Your task to perform on an android device: install app "WhatsApp Messenger" Image 0: 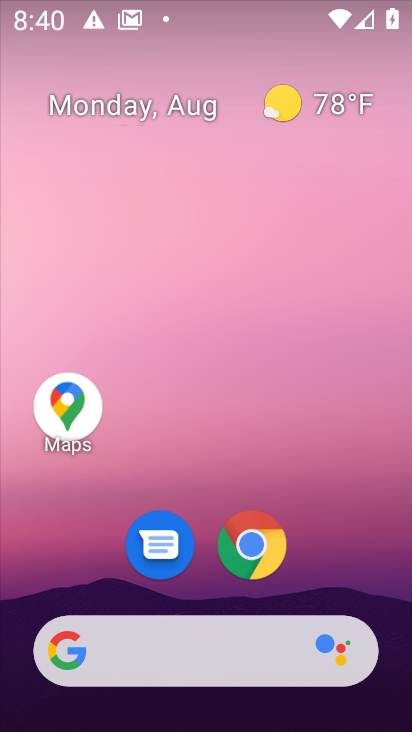
Step 0: press home button
Your task to perform on an android device: install app "WhatsApp Messenger" Image 1: 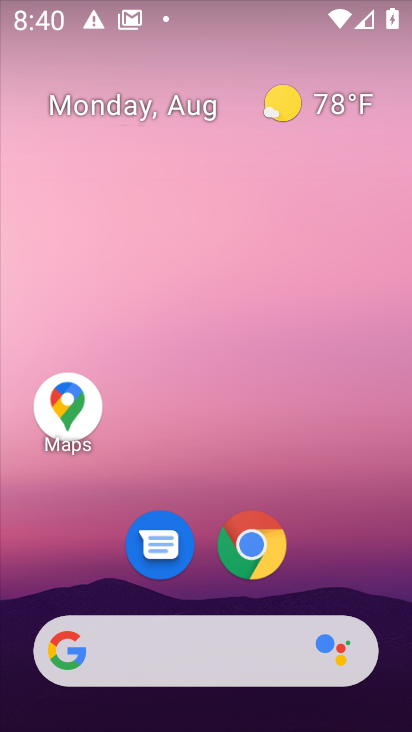
Step 1: drag from (356, 529) to (353, 60)
Your task to perform on an android device: install app "WhatsApp Messenger" Image 2: 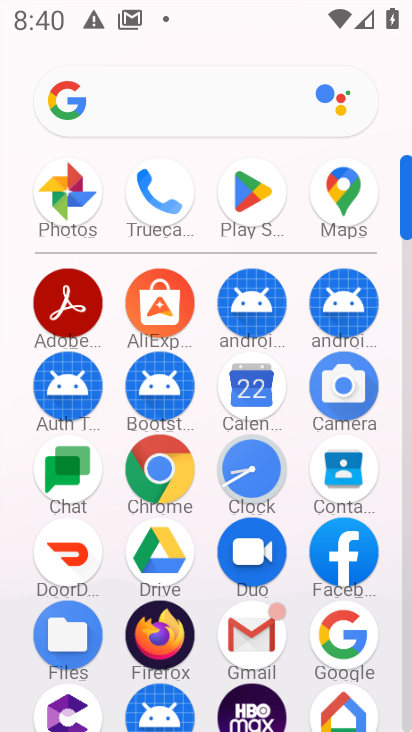
Step 2: click (259, 194)
Your task to perform on an android device: install app "WhatsApp Messenger" Image 3: 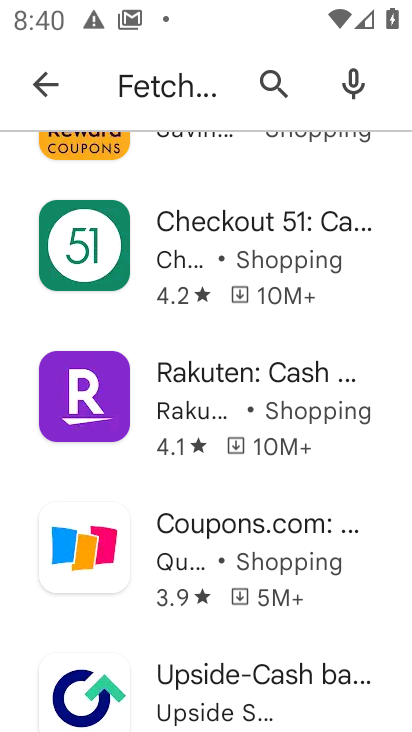
Step 3: press back button
Your task to perform on an android device: install app "WhatsApp Messenger" Image 4: 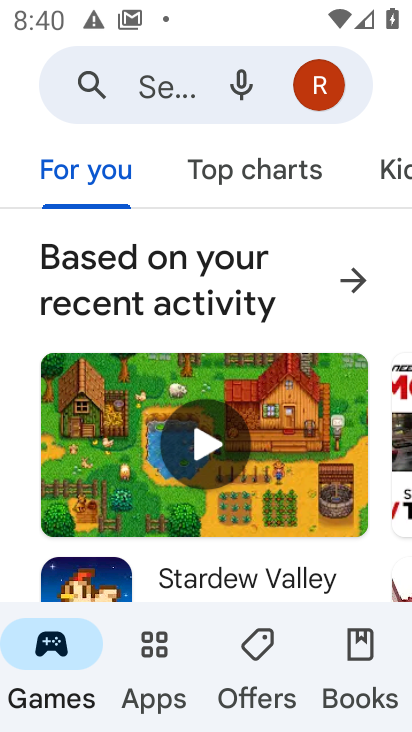
Step 4: click (150, 93)
Your task to perform on an android device: install app "WhatsApp Messenger" Image 5: 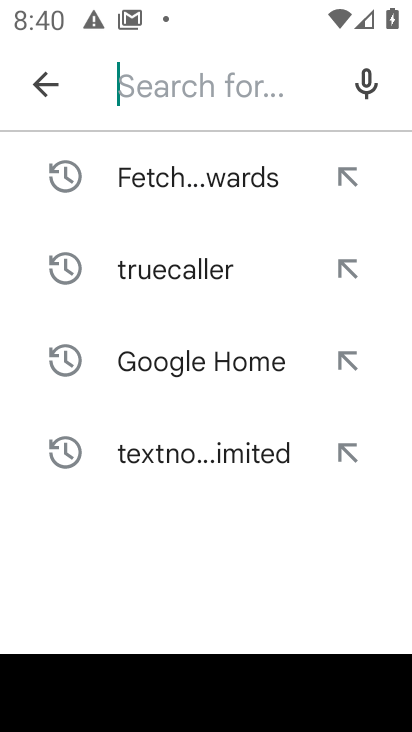
Step 5: type "WhatsApp Messenger"
Your task to perform on an android device: install app "WhatsApp Messenger" Image 6: 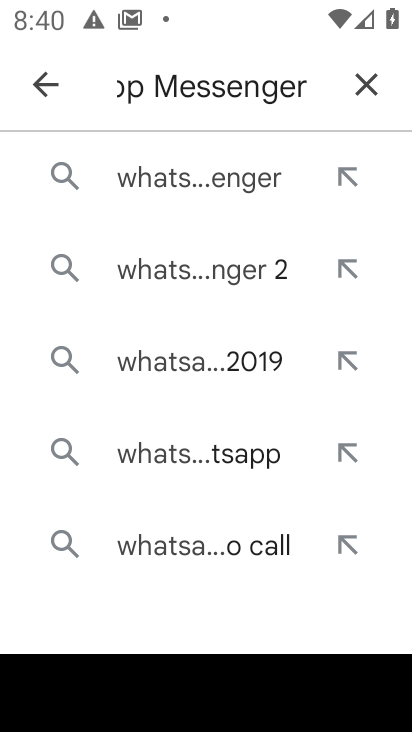
Step 6: click (206, 178)
Your task to perform on an android device: install app "WhatsApp Messenger" Image 7: 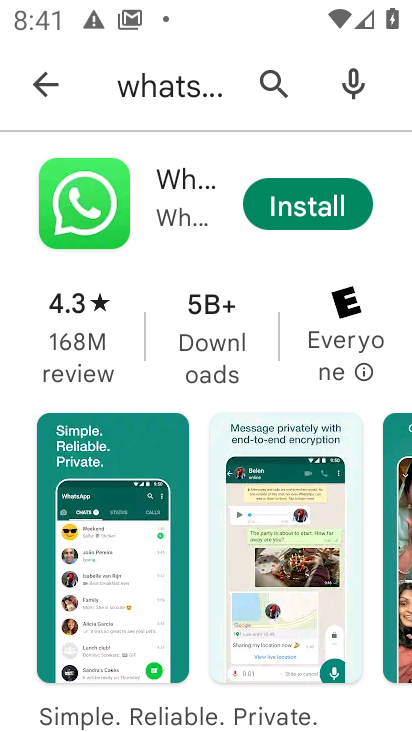
Step 7: click (319, 207)
Your task to perform on an android device: install app "WhatsApp Messenger" Image 8: 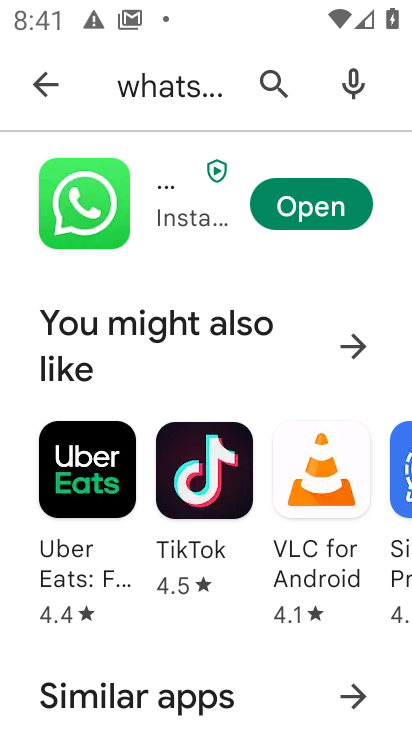
Step 8: task complete